Your task to perform on an android device: Open calendar and show me the third week of next month Image 0: 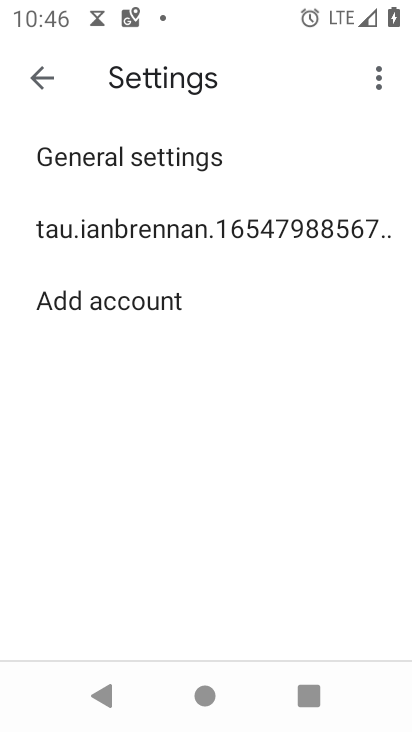
Step 0: press home button
Your task to perform on an android device: Open calendar and show me the third week of next month Image 1: 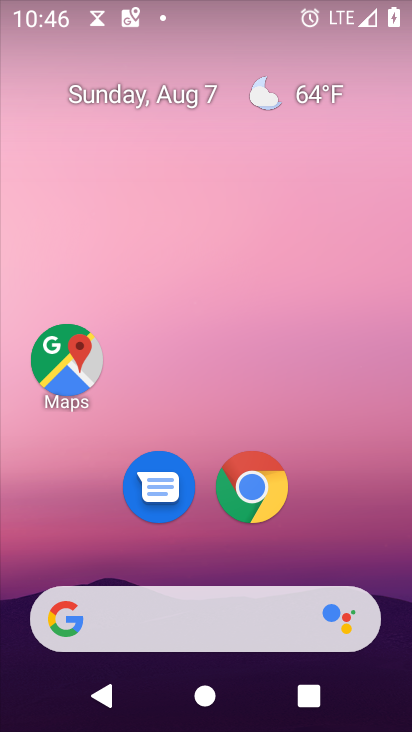
Step 1: drag from (381, 680) to (304, 136)
Your task to perform on an android device: Open calendar and show me the third week of next month Image 2: 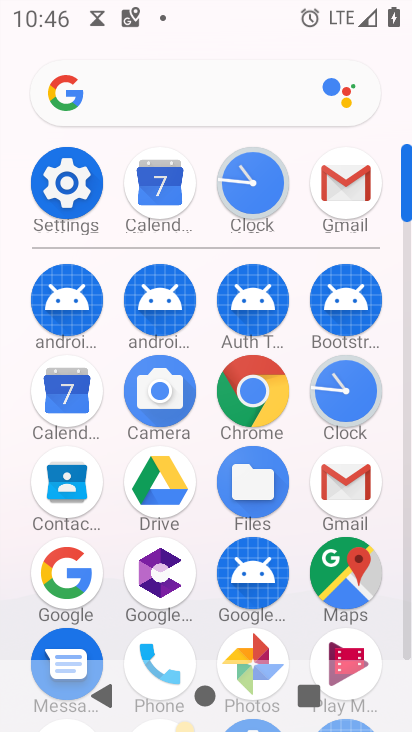
Step 2: click (46, 386)
Your task to perform on an android device: Open calendar and show me the third week of next month Image 3: 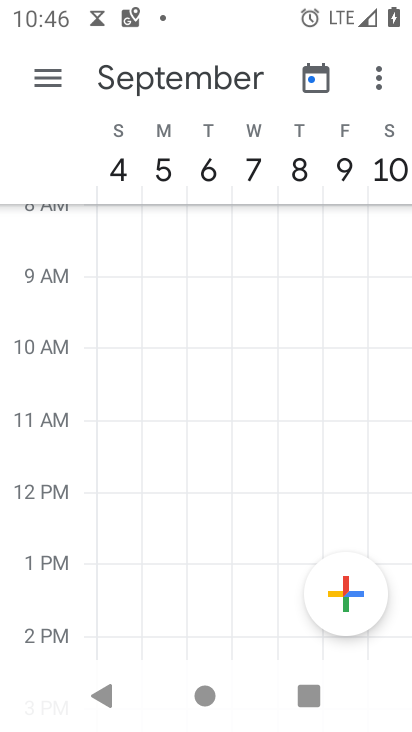
Step 3: click (218, 74)
Your task to perform on an android device: Open calendar and show me the third week of next month Image 4: 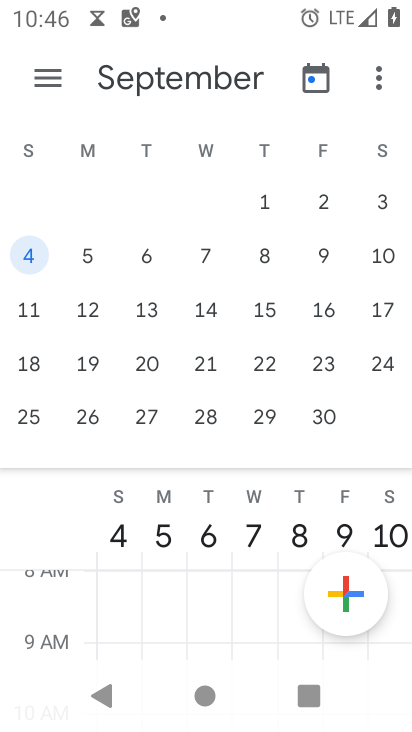
Step 4: click (205, 310)
Your task to perform on an android device: Open calendar and show me the third week of next month Image 5: 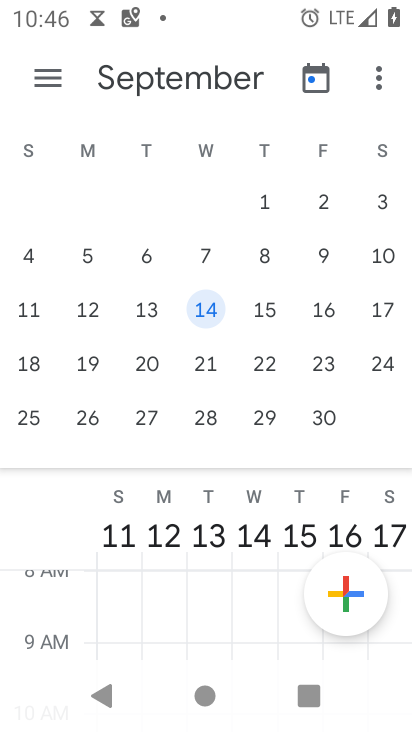
Step 5: click (44, 80)
Your task to perform on an android device: Open calendar and show me the third week of next month Image 6: 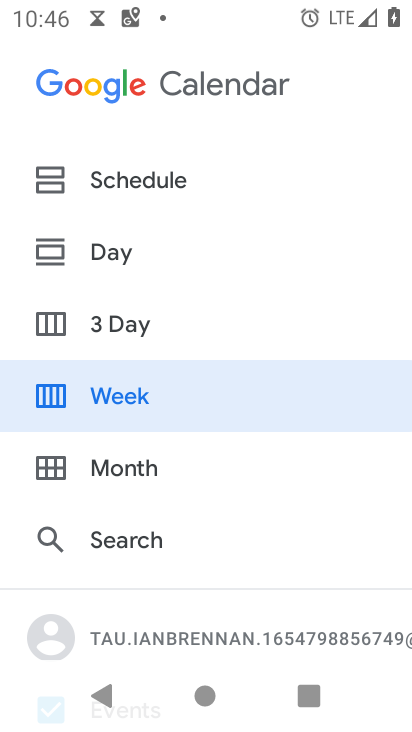
Step 6: click (102, 401)
Your task to perform on an android device: Open calendar and show me the third week of next month Image 7: 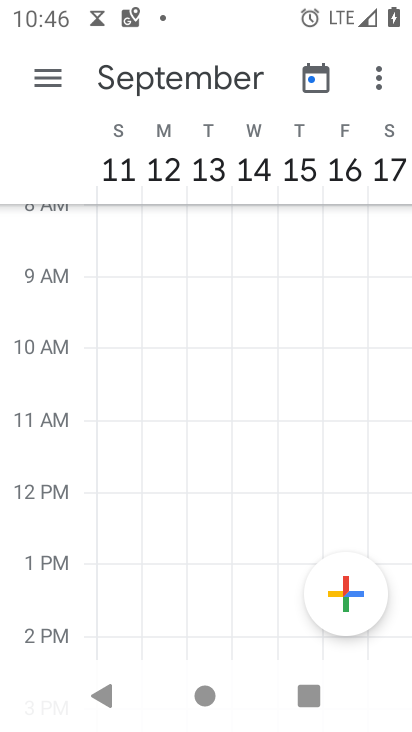
Step 7: task complete